Your task to perform on an android device: Open Reddit.com Image 0: 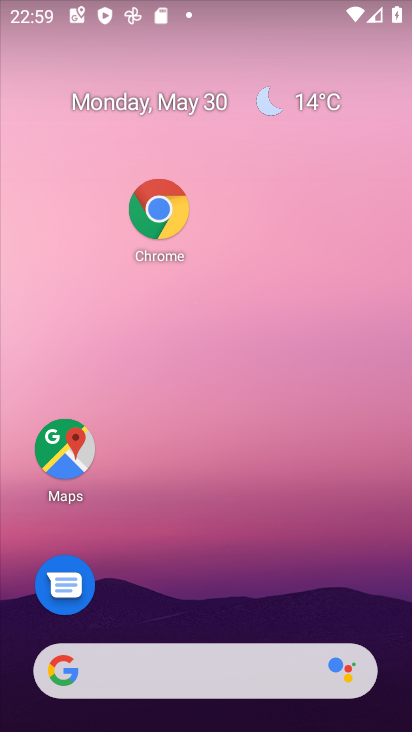
Step 0: drag from (176, 610) to (220, 63)
Your task to perform on an android device: Open Reddit.com Image 1: 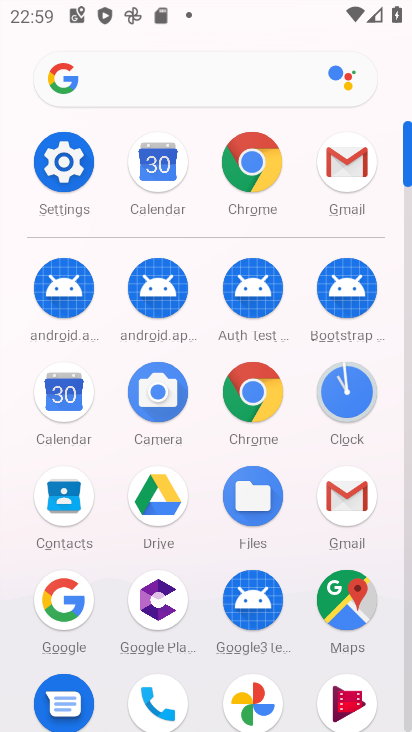
Step 1: click (142, 94)
Your task to perform on an android device: Open Reddit.com Image 2: 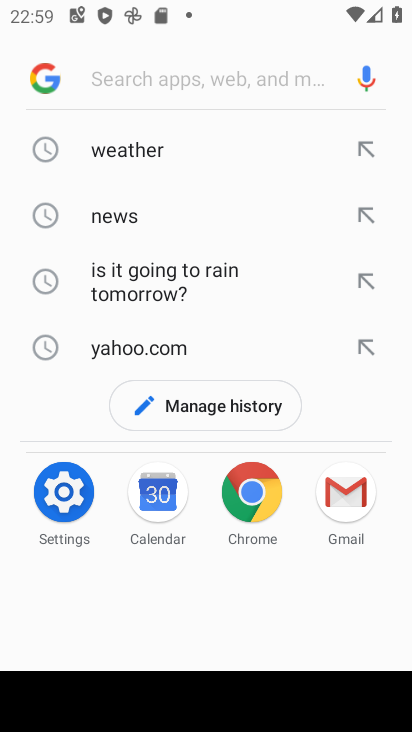
Step 2: type "Reddit.com"
Your task to perform on an android device: Open Reddit.com Image 3: 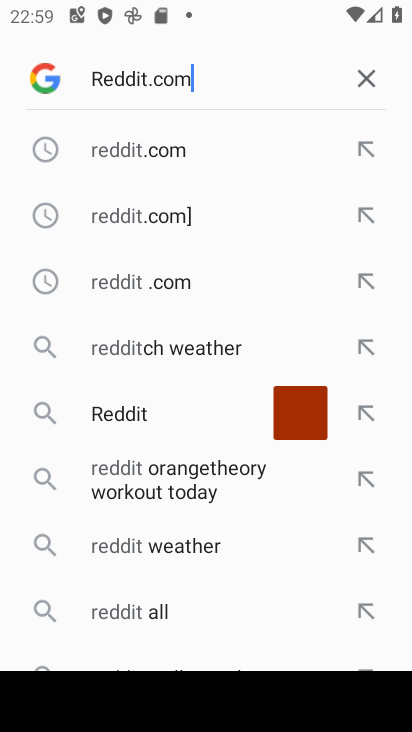
Step 3: type ""
Your task to perform on an android device: Open Reddit.com Image 4: 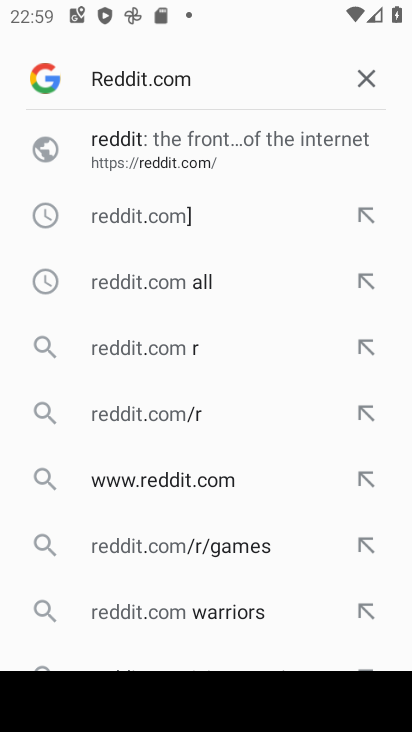
Step 4: click (159, 162)
Your task to perform on an android device: Open Reddit.com Image 5: 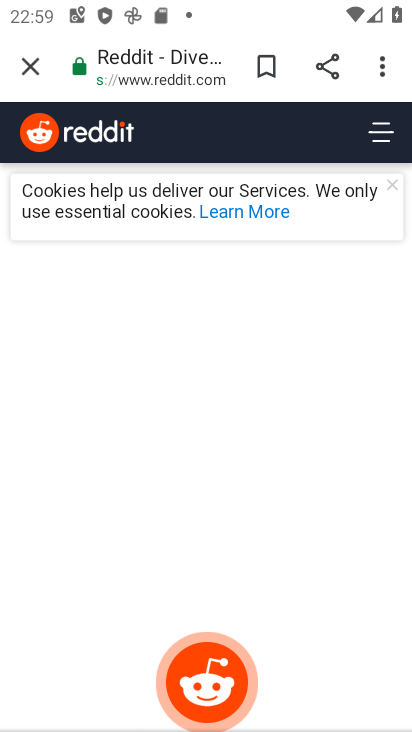
Step 5: task complete